Your task to perform on an android device: Show me popular games on the Play Store Image 0: 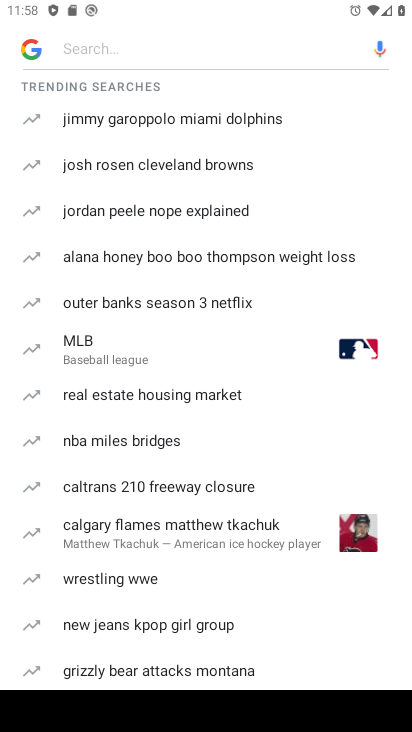
Step 0: press home button
Your task to perform on an android device: Show me popular games on the Play Store Image 1: 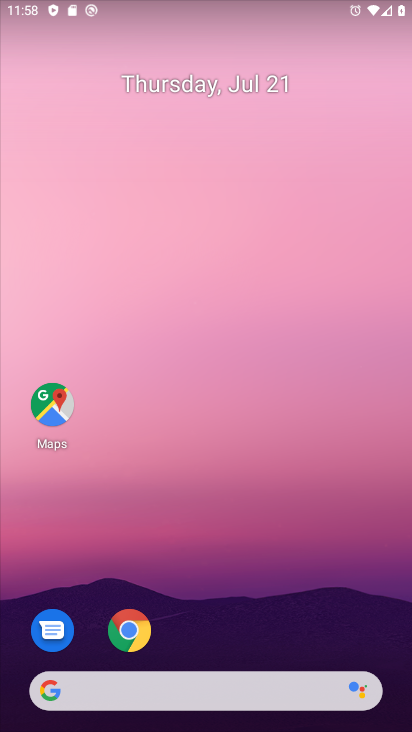
Step 1: drag from (195, 621) to (160, 256)
Your task to perform on an android device: Show me popular games on the Play Store Image 2: 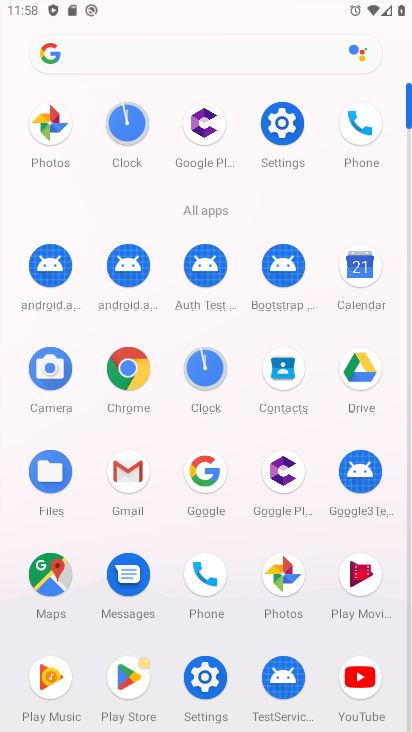
Step 2: click (118, 685)
Your task to perform on an android device: Show me popular games on the Play Store Image 3: 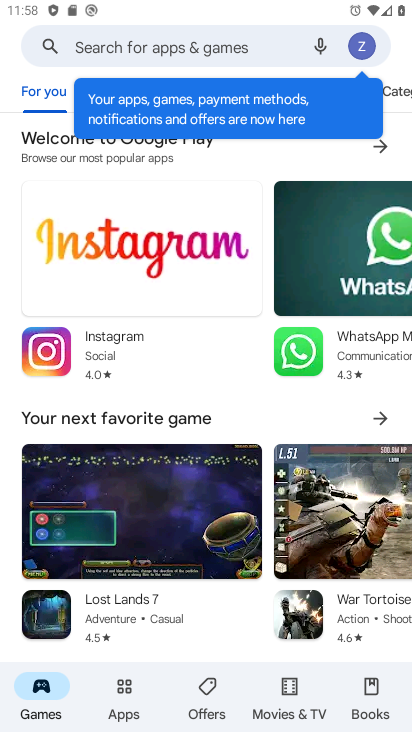
Step 3: drag from (152, 621) to (98, 579)
Your task to perform on an android device: Show me popular games on the Play Store Image 4: 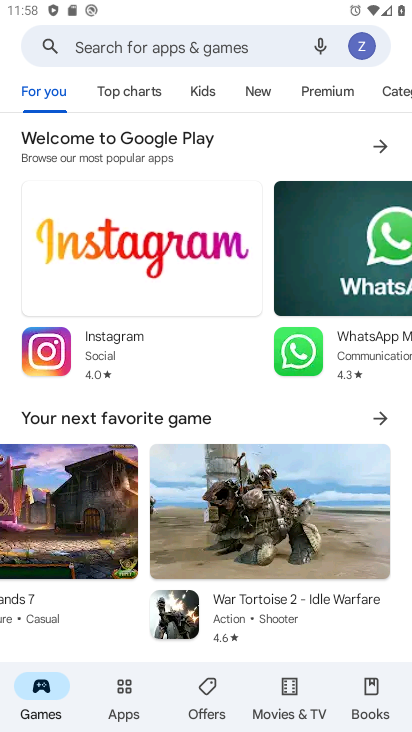
Step 4: click (129, 83)
Your task to perform on an android device: Show me popular games on the Play Store Image 5: 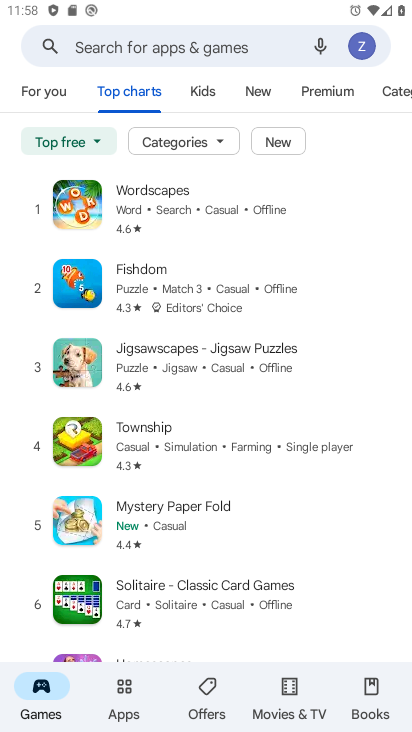
Step 5: click (92, 138)
Your task to perform on an android device: Show me popular games on the Play Store Image 6: 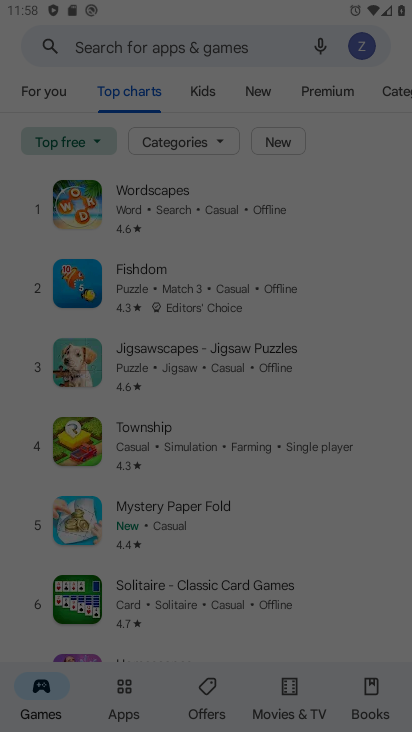
Step 6: click (98, 141)
Your task to perform on an android device: Show me popular games on the Play Store Image 7: 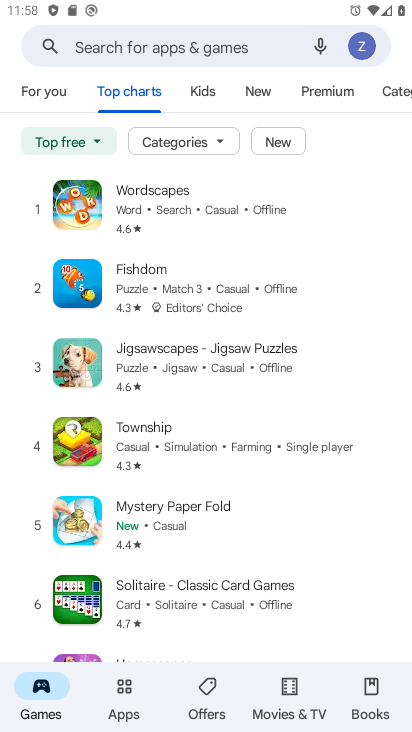
Step 7: click (98, 141)
Your task to perform on an android device: Show me popular games on the Play Store Image 8: 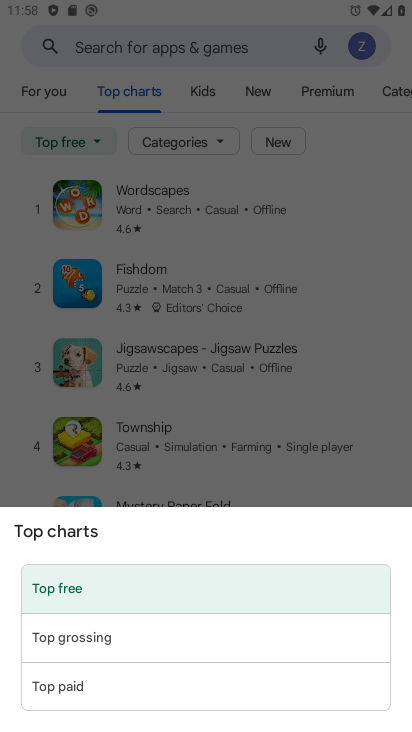
Step 8: click (99, 637)
Your task to perform on an android device: Show me popular games on the Play Store Image 9: 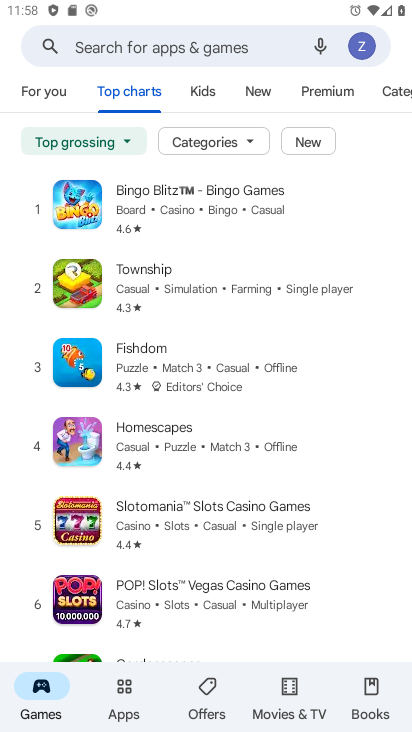
Step 9: task complete